Your task to perform on an android device: turn off sleep mode Image 0: 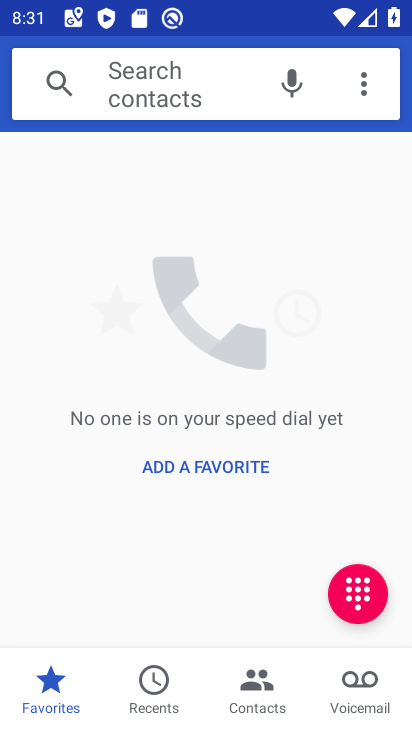
Step 0: press home button
Your task to perform on an android device: turn off sleep mode Image 1: 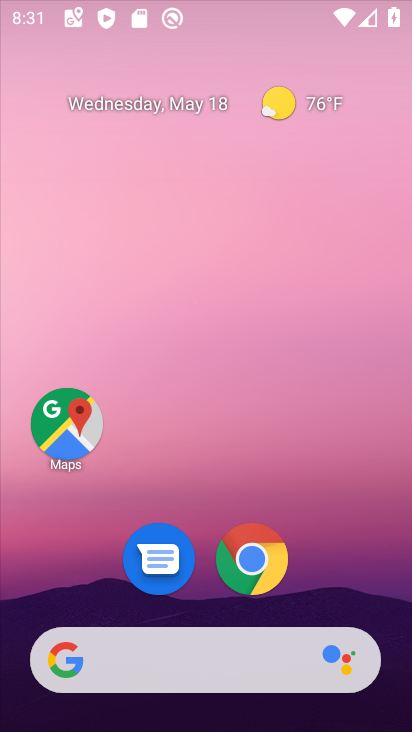
Step 1: drag from (376, 534) to (399, 41)
Your task to perform on an android device: turn off sleep mode Image 2: 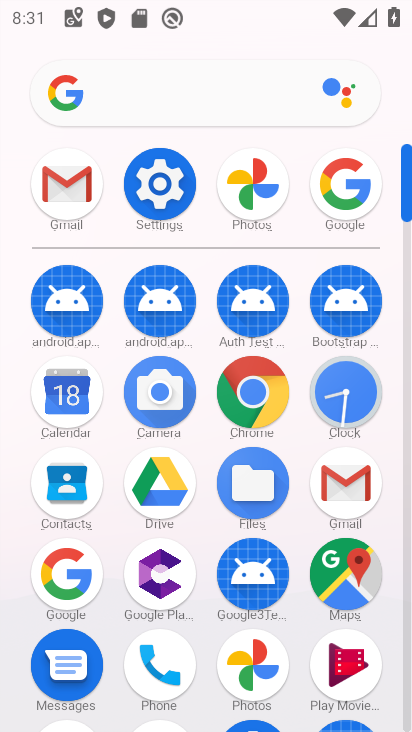
Step 2: click (157, 185)
Your task to perform on an android device: turn off sleep mode Image 3: 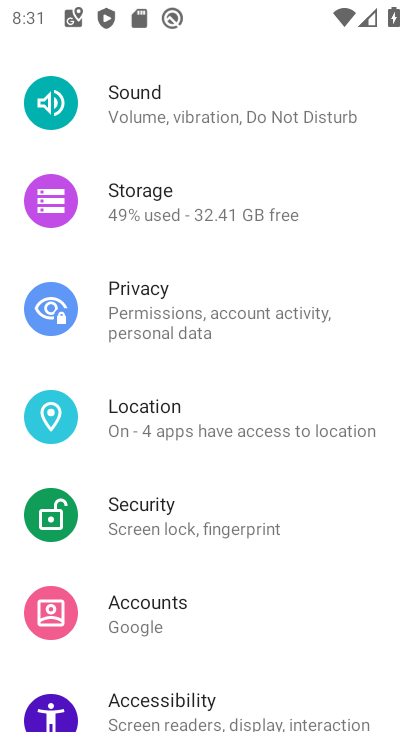
Step 3: drag from (225, 196) to (216, 510)
Your task to perform on an android device: turn off sleep mode Image 4: 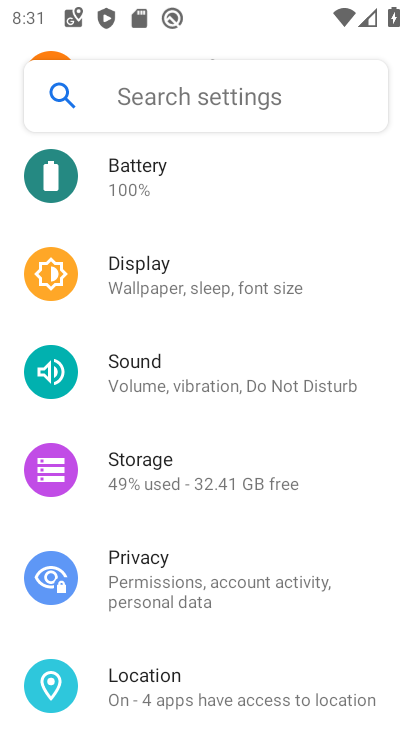
Step 4: click (179, 272)
Your task to perform on an android device: turn off sleep mode Image 5: 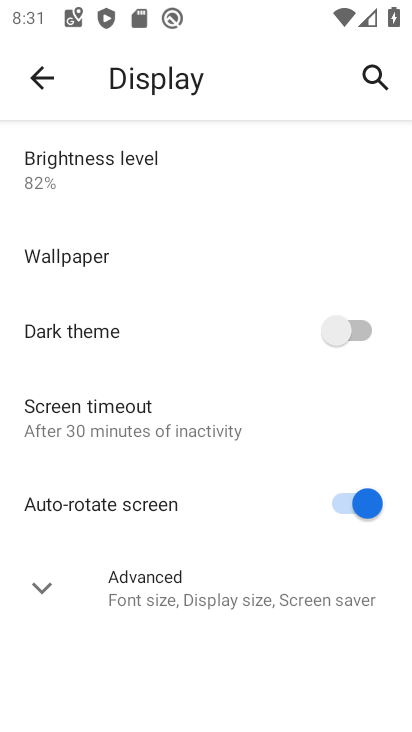
Step 5: click (117, 406)
Your task to perform on an android device: turn off sleep mode Image 6: 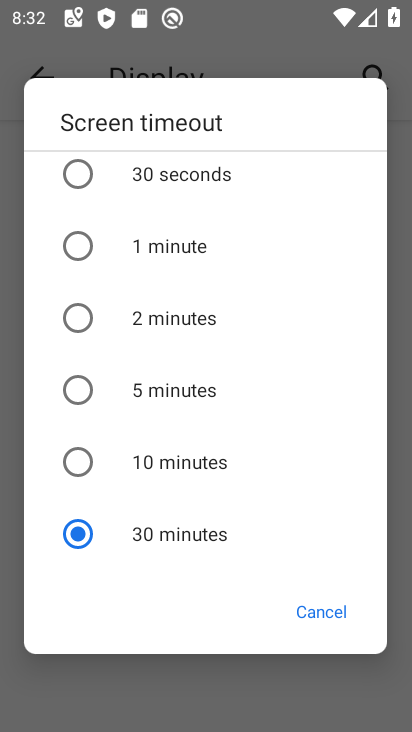
Step 6: task complete